Your task to perform on an android device: Go to notification settings Image 0: 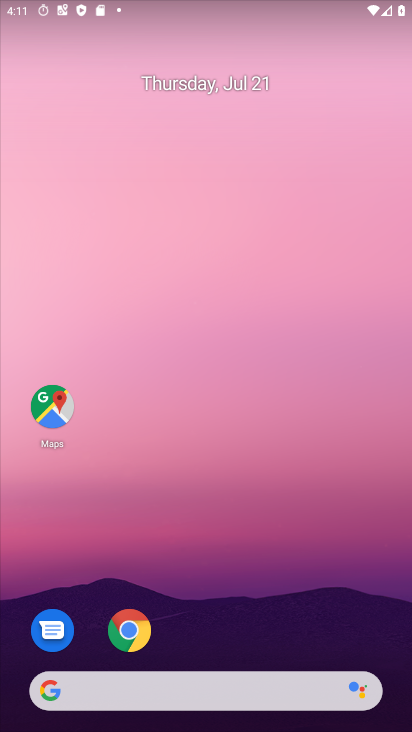
Step 0: drag from (178, 690) to (218, 37)
Your task to perform on an android device: Go to notification settings Image 1: 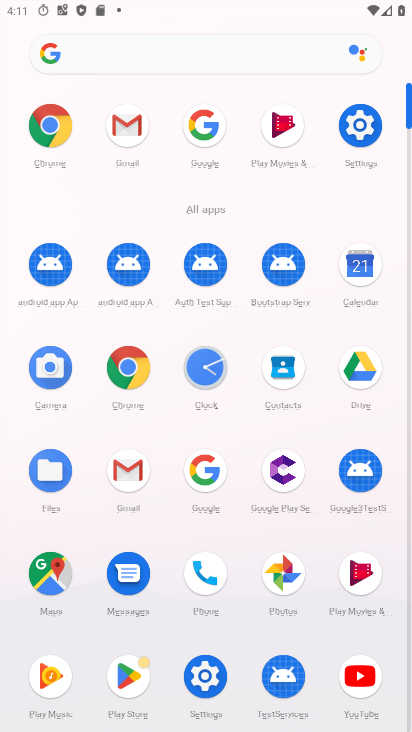
Step 1: click (360, 128)
Your task to perform on an android device: Go to notification settings Image 2: 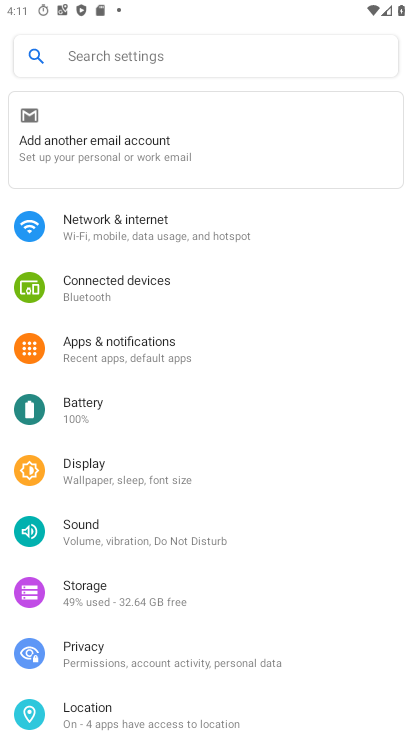
Step 2: click (117, 348)
Your task to perform on an android device: Go to notification settings Image 3: 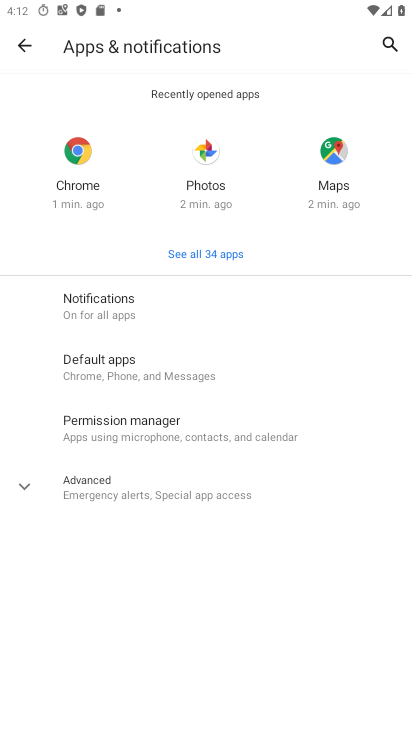
Step 3: click (93, 311)
Your task to perform on an android device: Go to notification settings Image 4: 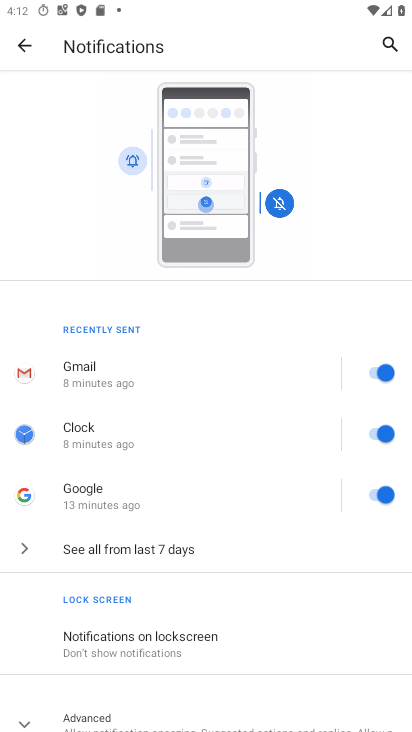
Step 4: task complete